Your task to perform on an android device: Set the phone to "Do not disturb". Image 0: 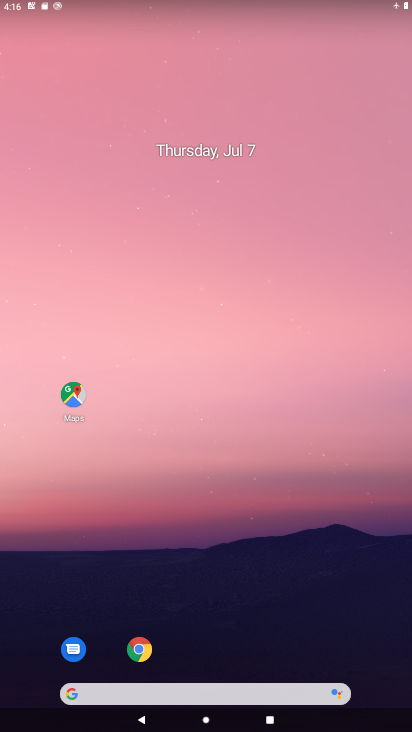
Step 0: click (340, 214)
Your task to perform on an android device: Set the phone to "Do not disturb". Image 1: 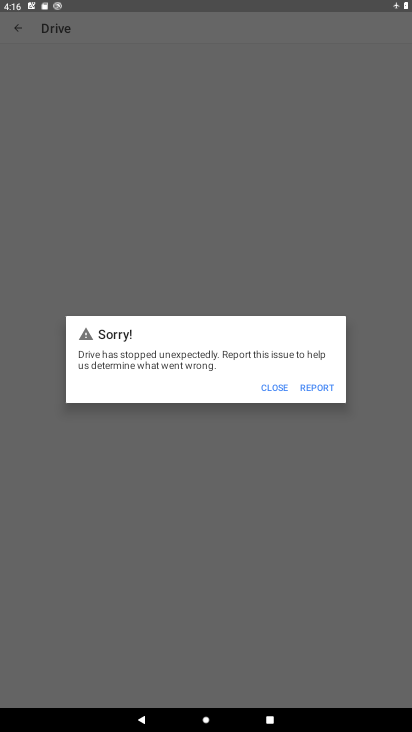
Step 1: press home button
Your task to perform on an android device: Set the phone to "Do not disturb". Image 2: 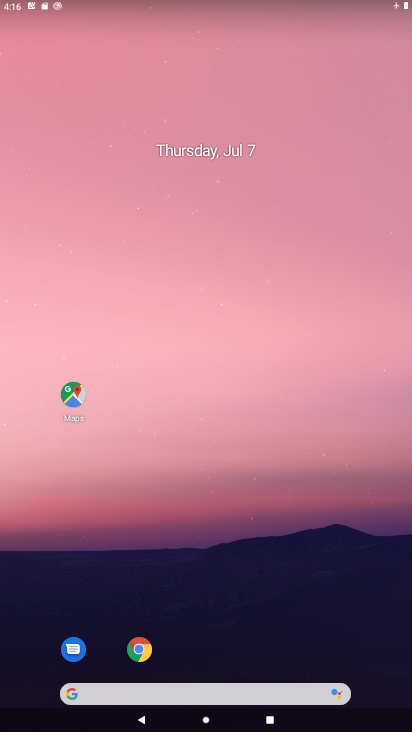
Step 2: drag from (367, 659) to (319, 183)
Your task to perform on an android device: Set the phone to "Do not disturb". Image 3: 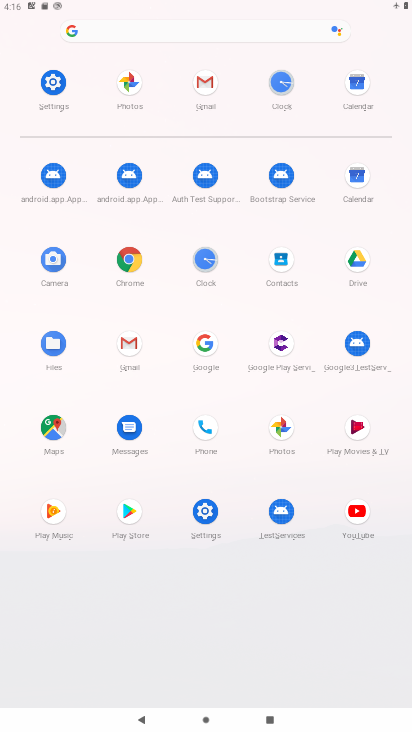
Step 3: click (204, 510)
Your task to perform on an android device: Set the phone to "Do not disturb". Image 4: 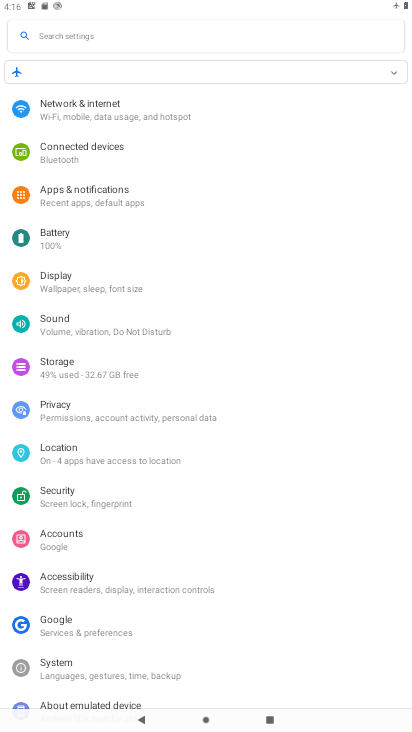
Step 4: click (57, 320)
Your task to perform on an android device: Set the phone to "Do not disturb". Image 5: 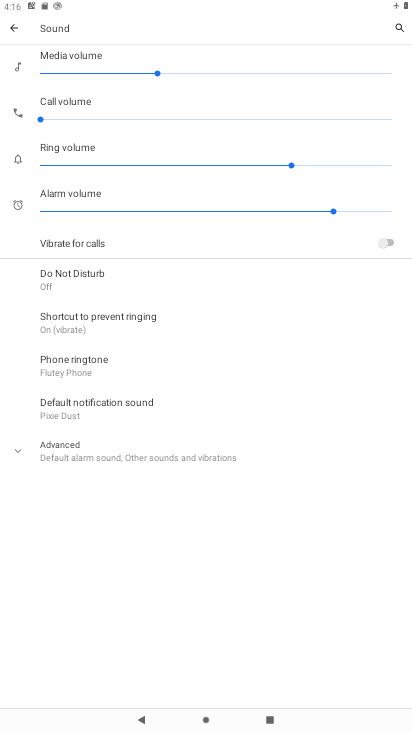
Step 5: click (56, 278)
Your task to perform on an android device: Set the phone to "Do not disturb". Image 6: 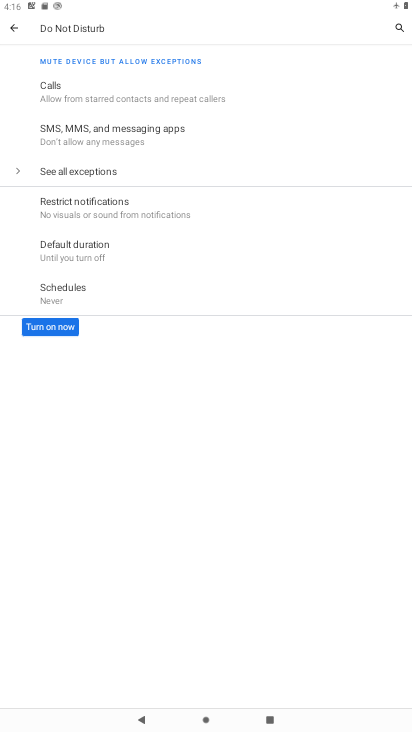
Step 6: click (52, 327)
Your task to perform on an android device: Set the phone to "Do not disturb". Image 7: 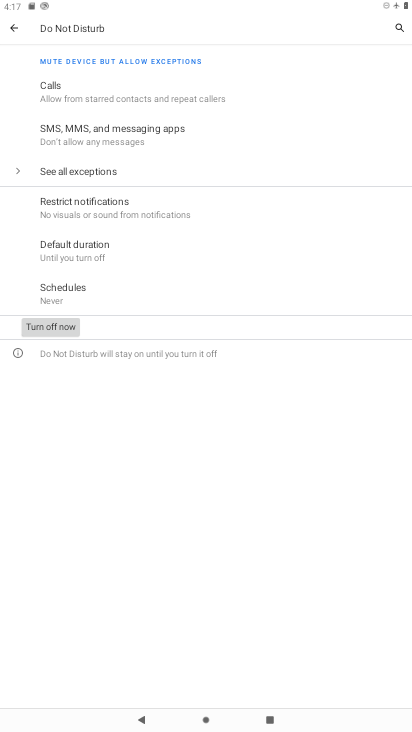
Step 7: task complete